Your task to perform on an android device: toggle translation in the chrome app Image 0: 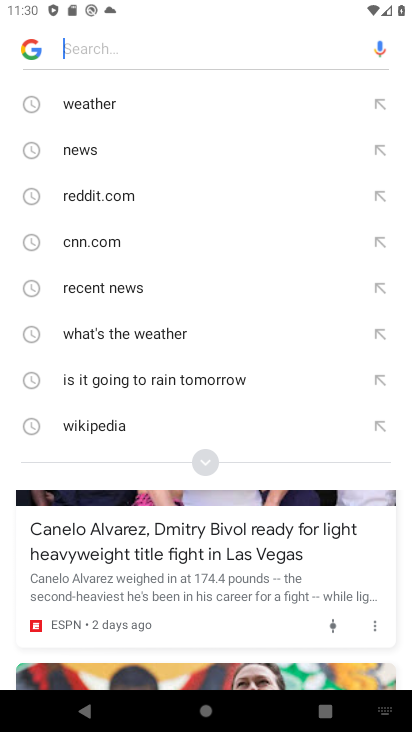
Step 0: press home button
Your task to perform on an android device: toggle translation in the chrome app Image 1: 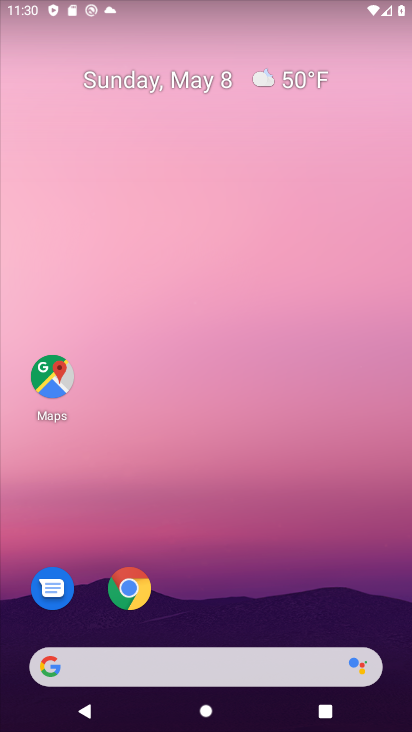
Step 1: click (143, 585)
Your task to perform on an android device: toggle translation in the chrome app Image 2: 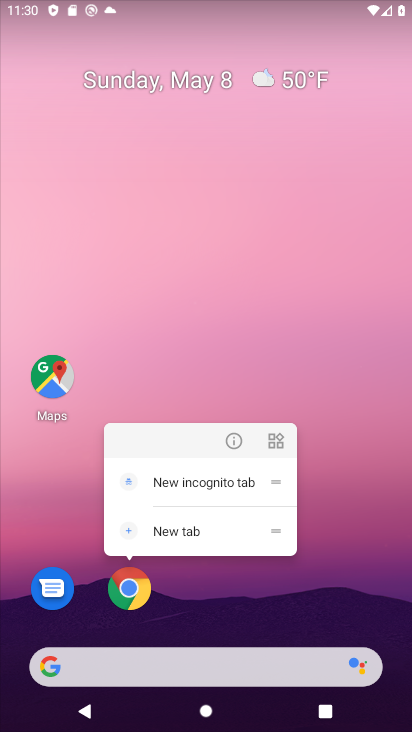
Step 2: click (131, 583)
Your task to perform on an android device: toggle translation in the chrome app Image 3: 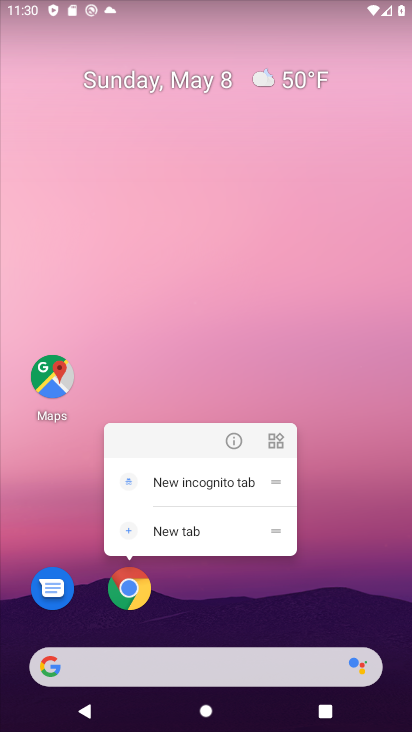
Step 3: click (124, 592)
Your task to perform on an android device: toggle translation in the chrome app Image 4: 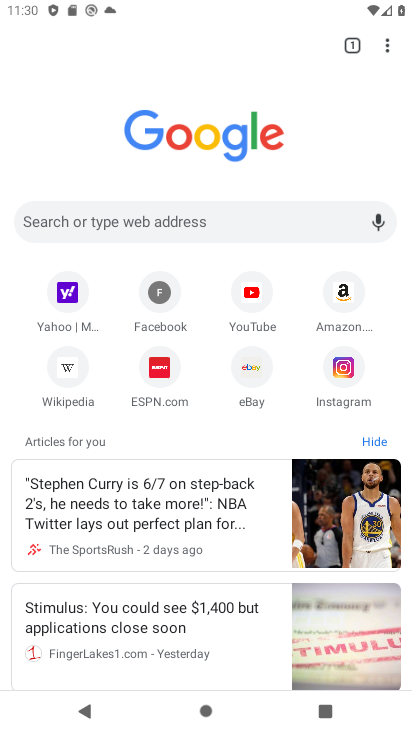
Step 4: drag from (393, 42) to (267, 385)
Your task to perform on an android device: toggle translation in the chrome app Image 5: 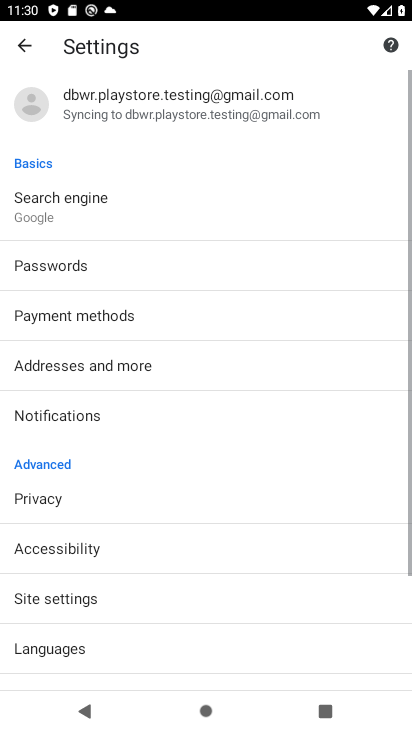
Step 5: drag from (171, 608) to (194, 300)
Your task to perform on an android device: toggle translation in the chrome app Image 6: 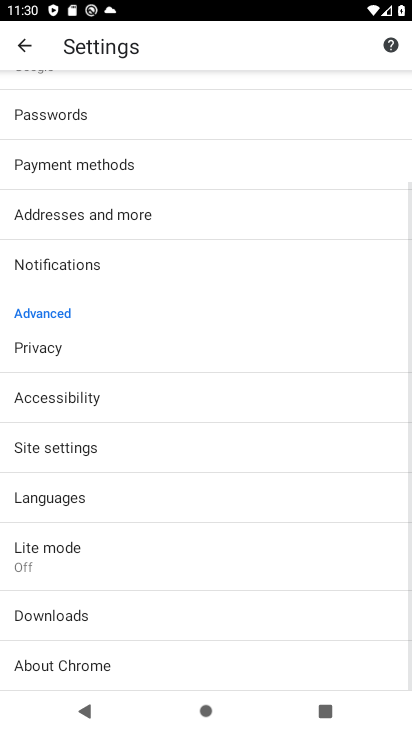
Step 6: click (54, 491)
Your task to perform on an android device: toggle translation in the chrome app Image 7: 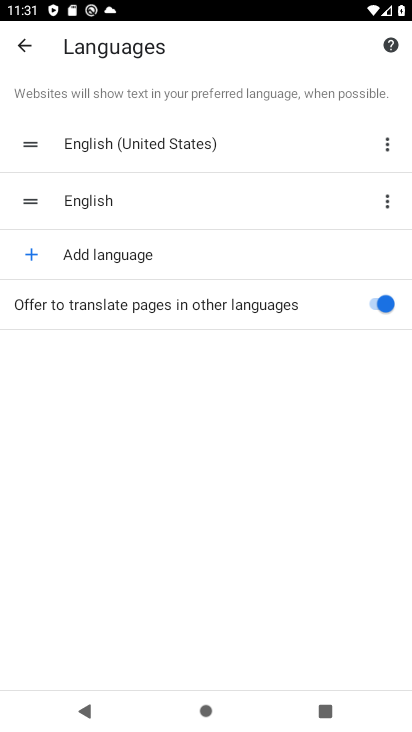
Step 7: click (396, 300)
Your task to perform on an android device: toggle translation in the chrome app Image 8: 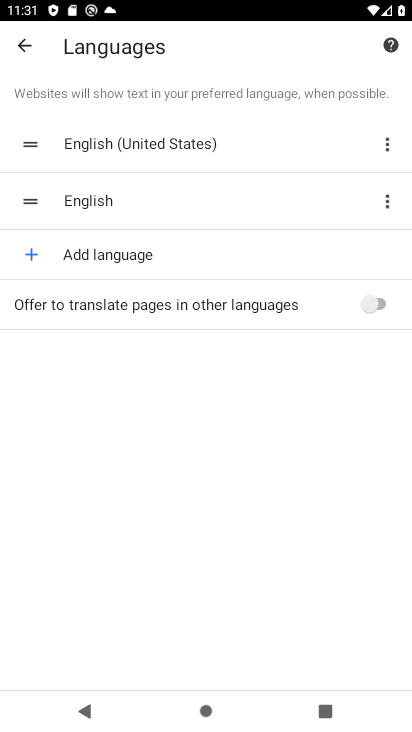
Step 8: task complete